Your task to perform on an android device: turn on improve location accuracy Image 0: 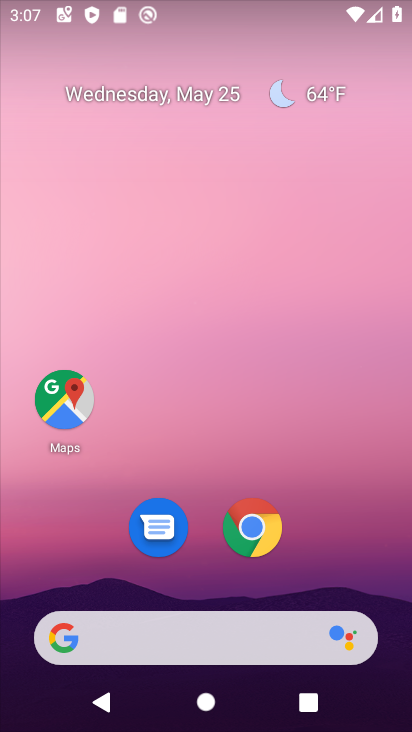
Step 0: drag from (199, 512) to (211, 140)
Your task to perform on an android device: turn on improve location accuracy Image 1: 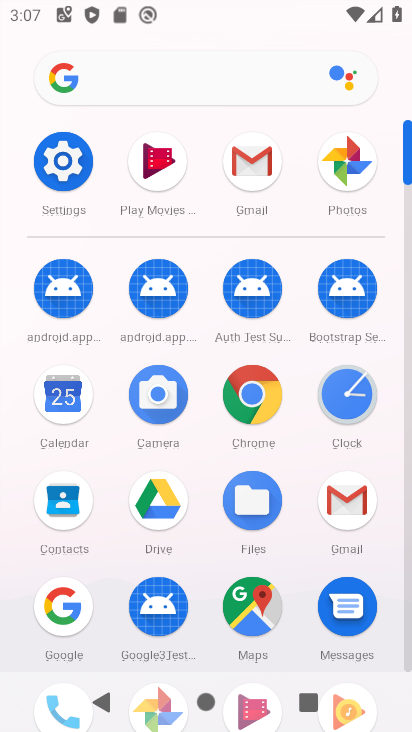
Step 1: click (63, 164)
Your task to perform on an android device: turn on improve location accuracy Image 2: 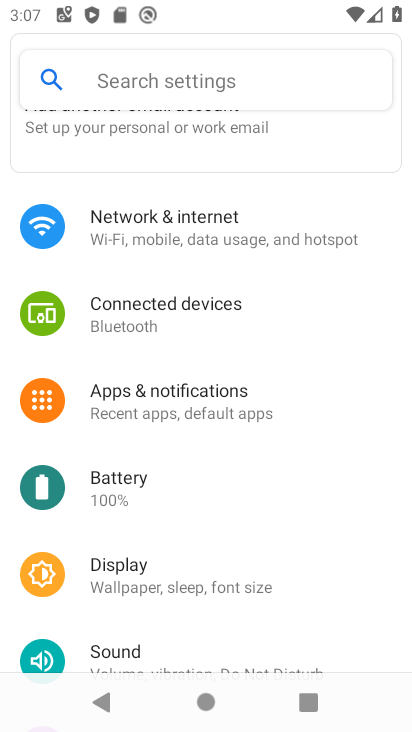
Step 2: drag from (229, 609) to (281, 122)
Your task to perform on an android device: turn on improve location accuracy Image 3: 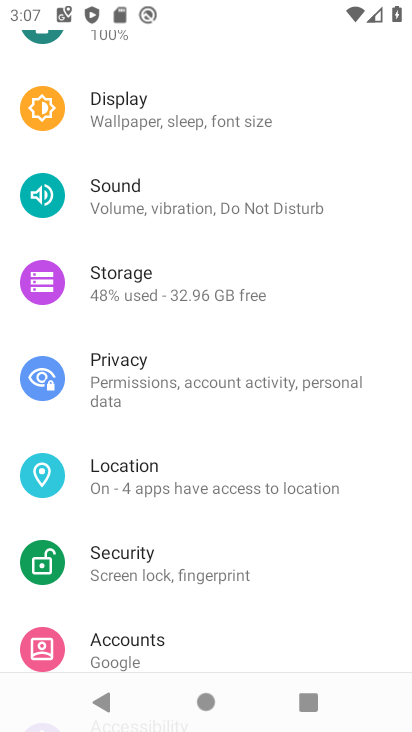
Step 3: click (149, 479)
Your task to perform on an android device: turn on improve location accuracy Image 4: 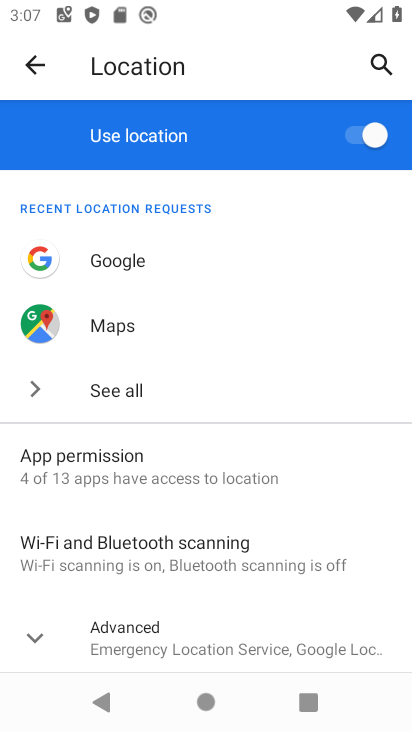
Step 4: drag from (192, 586) to (249, 236)
Your task to perform on an android device: turn on improve location accuracy Image 5: 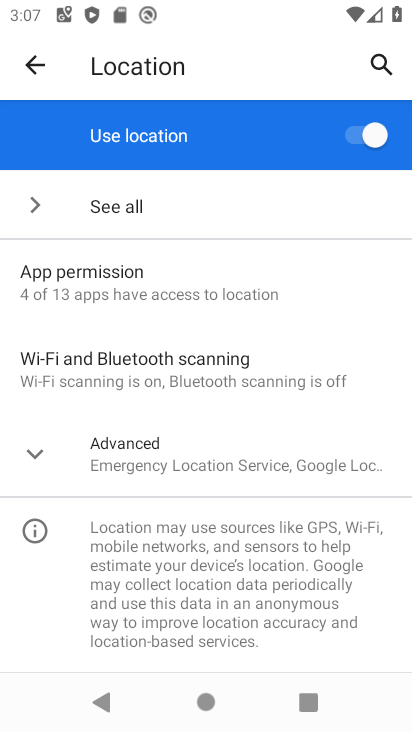
Step 5: click (153, 449)
Your task to perform on an android device: turn on improve location accuracy Image 6: 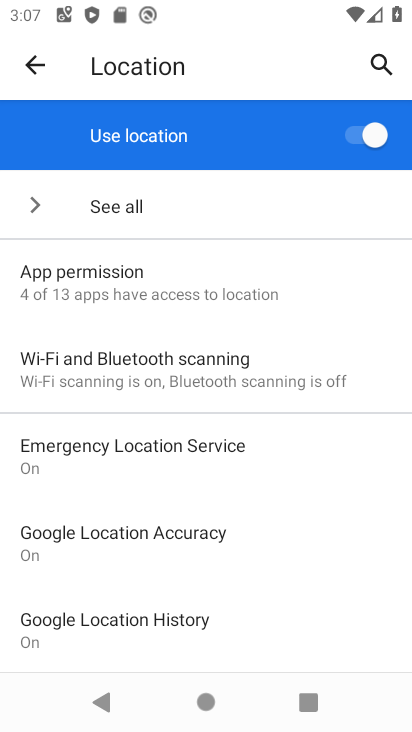
Step 6: click (138, 539)
Your task to perform on an android device: turn on improve location accuracy Image 7: 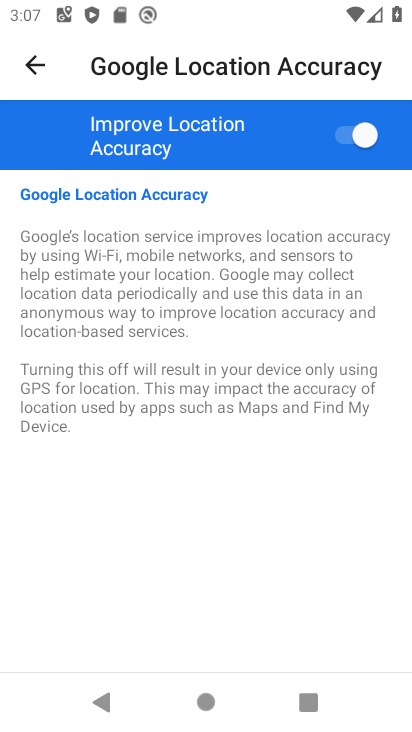
Step 7: task complete